Your task to perform on an android device: Open location settings Image 0: 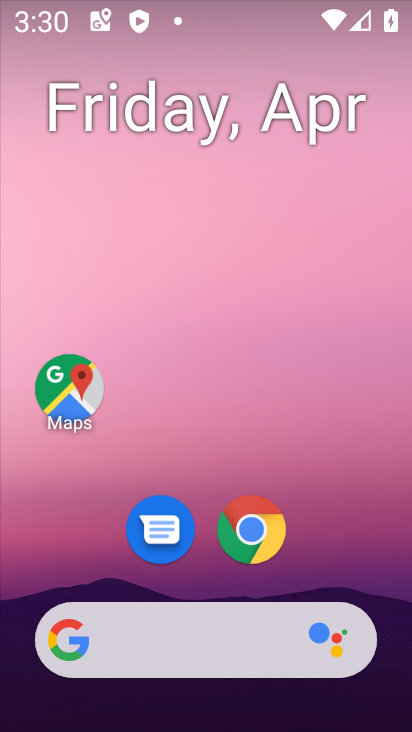
Step 0: drag from (309, 568) to (304, 185)
Your task to perform on an android device: Open location settings Image 1: 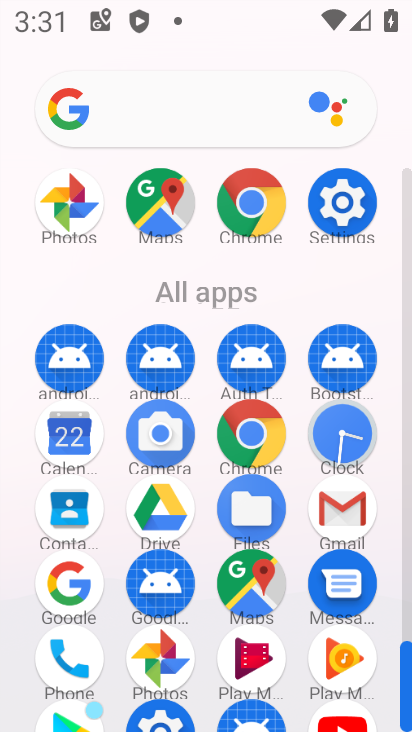
Step 1: click (387, 218)
Your task to perform on an android device: Open location settings Image 2: 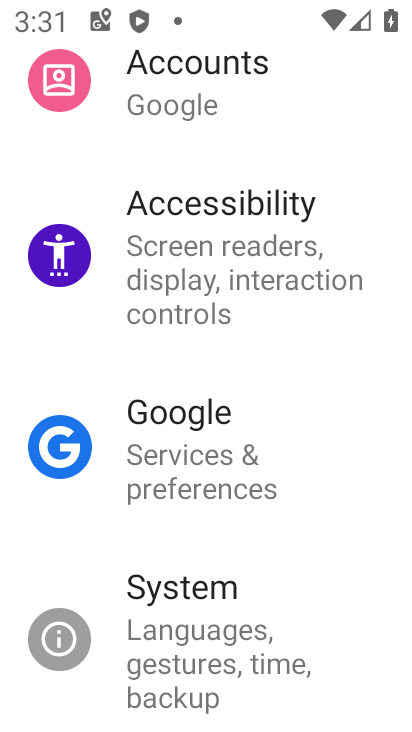
Step 2: drag from (198, 389) to (212, 463)
Your task to perform on an android device: Open location settings Image 3: 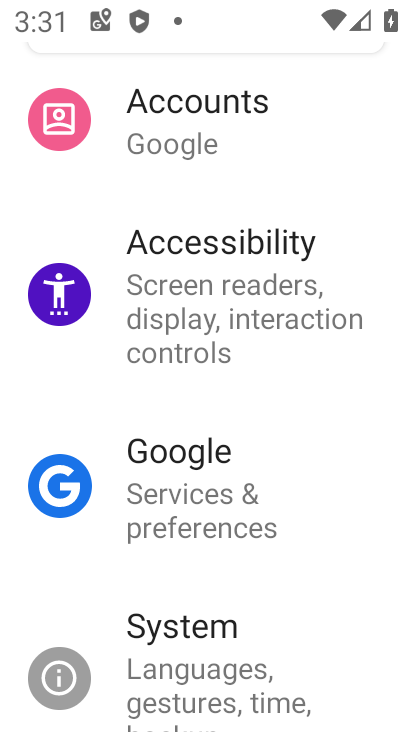
Step 3: drag from (188, 348) to (207, 461)
Your task to perform on an android device: Open location settings Image 4: 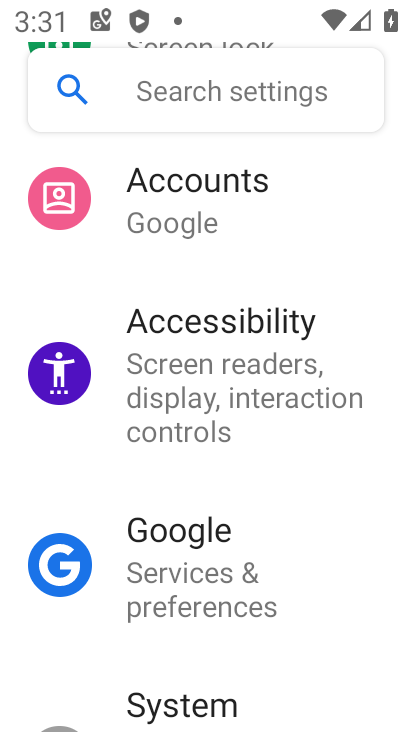
Step 4: drag from (208, 303) to (208, 420)
Your task to perform on an android device: Open location settings Image 5: 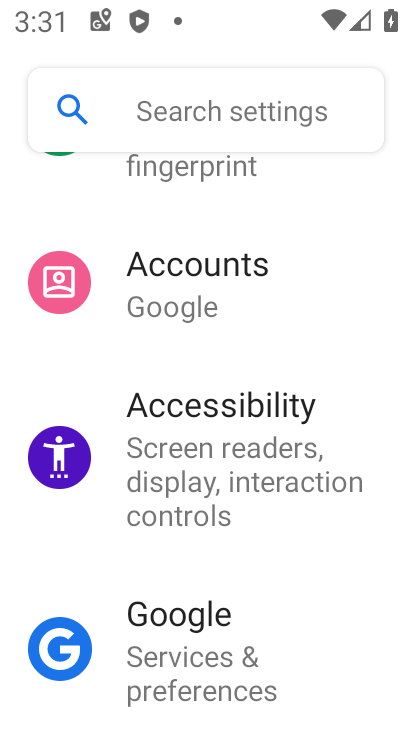
Step 5: drag from (201, 338) to (214, 420)
Your task to perform on an android device: Open location settings Image 6: 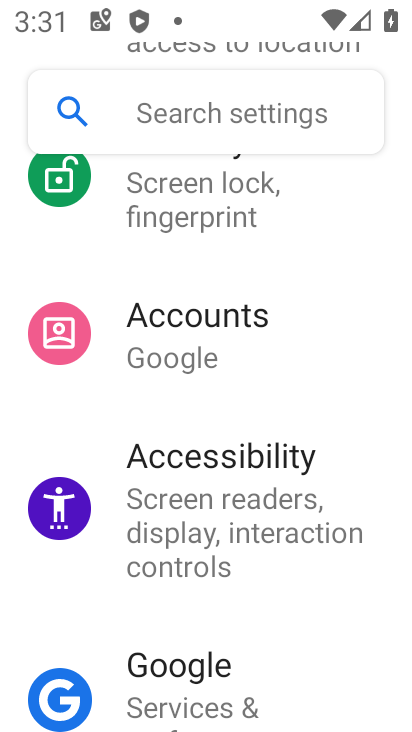
Step 6: drag from (180, 336) to (185, 424)
Your task to perform on an android device: Open location settings Image 7: 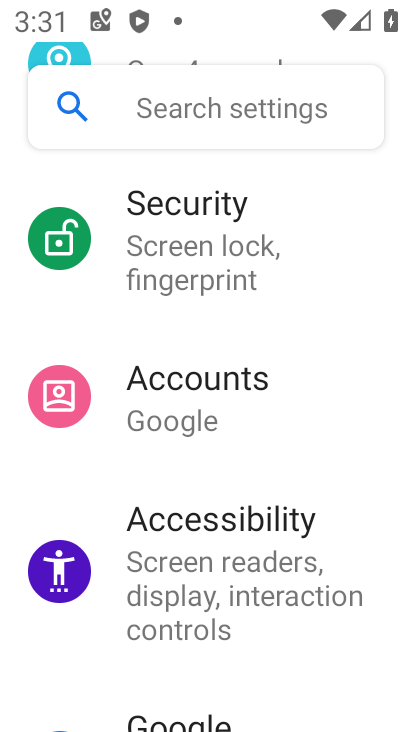
Step 7: drag from (173, 336) to (177, 439)
Your task to perform on an android device: Open location settings Image 8: 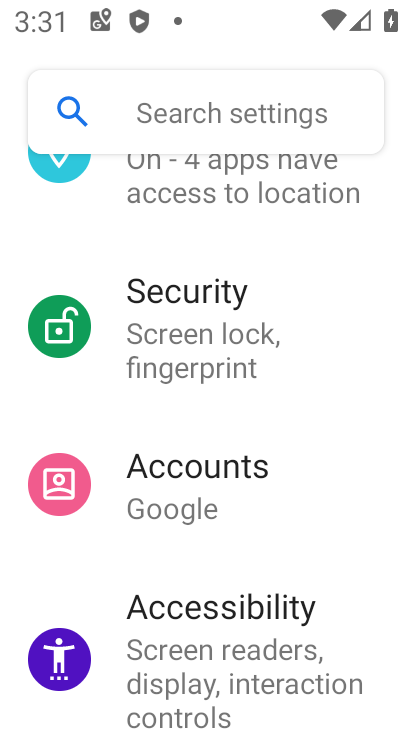
Step 8: drag from (191, 386) to (199, 502)
Your task to perform on an android device: Open location settings Image 9: 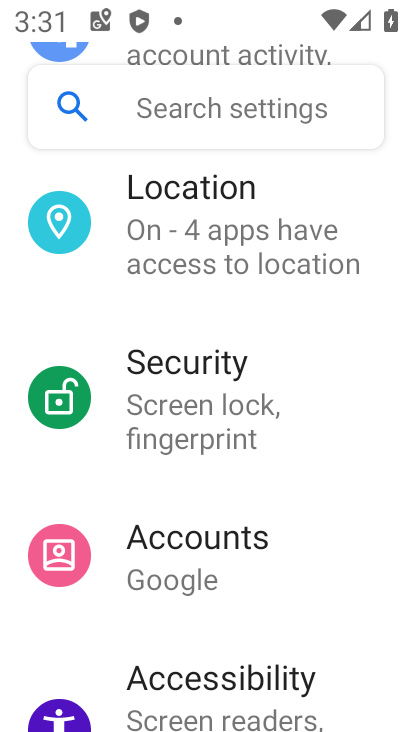
Step 9: click (228, 270)
Your task to perform on an android device: Open location settings Image 10: 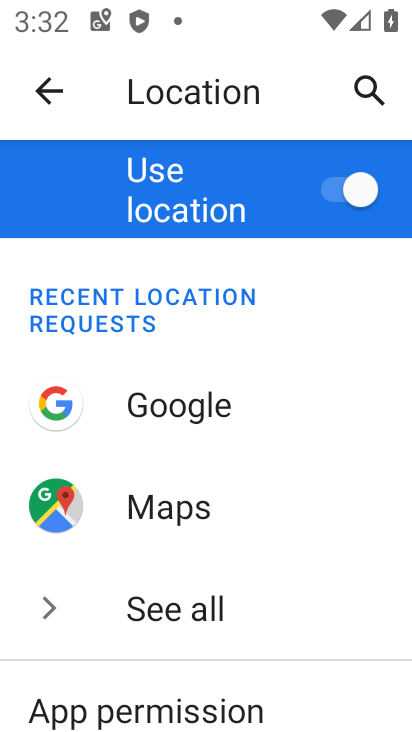
Step 10: task complete